Your task to perform on an android device: Open maps Image 0: 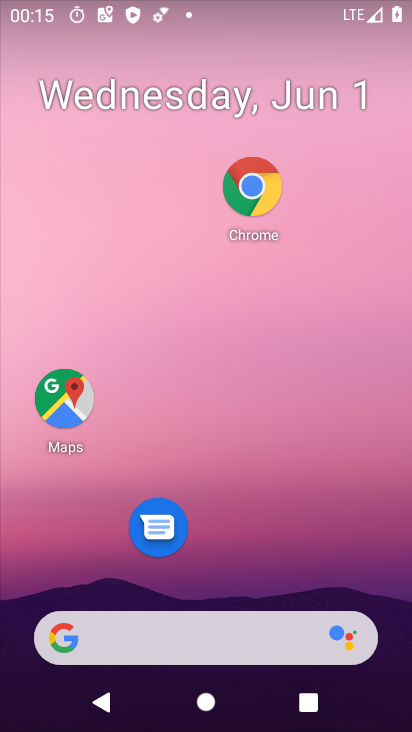
Step 0: drag from (207, 549) to (217, 13)
Your task to perform on an android device: Open maps Image 1: 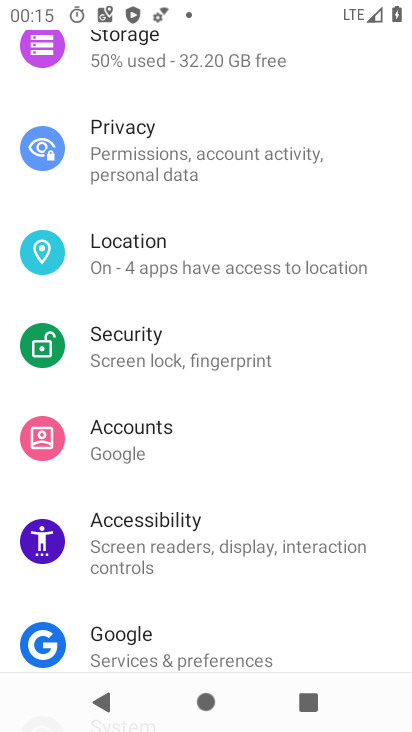
Step 1: drag from (186, 135) to (232, 723)
Your task to perform on an android device: Open maps Image 2: 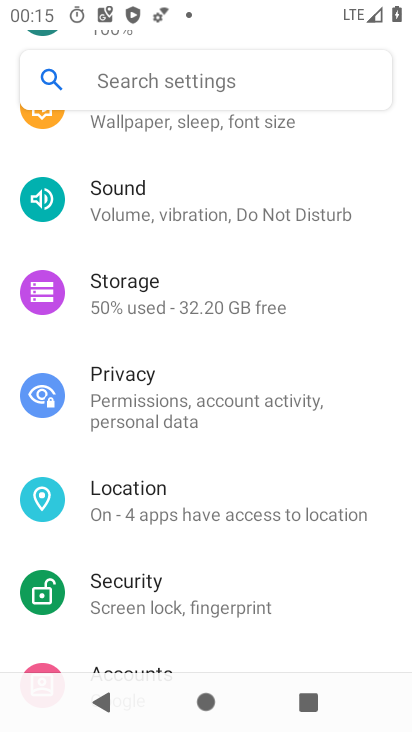
Step 2: drag from (218, 580) to (260, 58)
Your task to perform on an android device: Open maps Image 3: 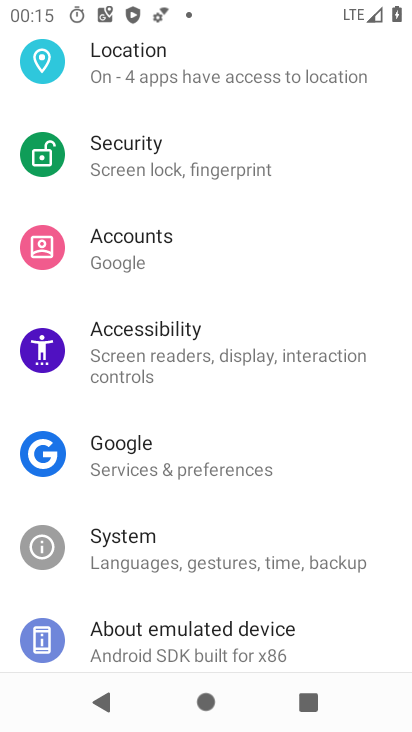
Step 3: press home button
Your task to perform on an android device: Open maps Image 4: 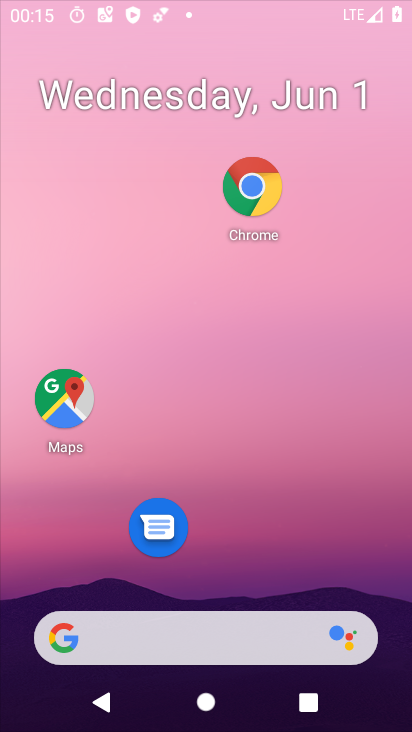
Step 4: drag from (170, 561) to (242, 80)
Your task to perform on an android device: Open maps Image 5: 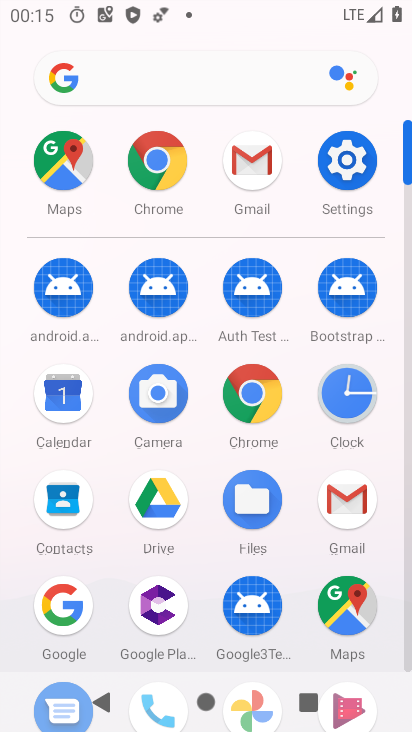
Step 5: click (341, 594)
Your task to perform on an android device: Open maps Image 6: 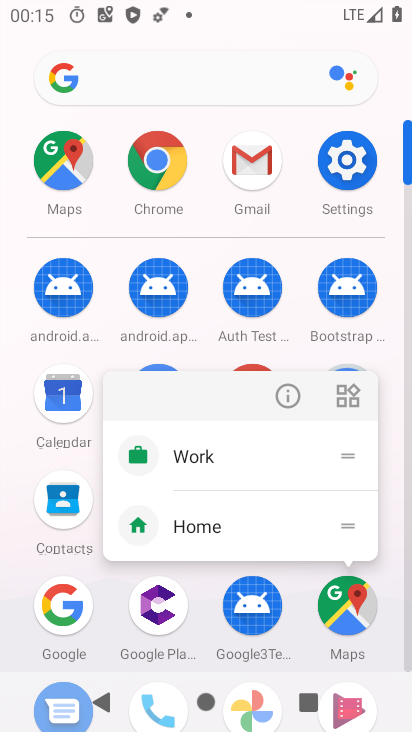
Step 6: click (286, 393)
Your task to perform on an android device: Open maps Image 7: 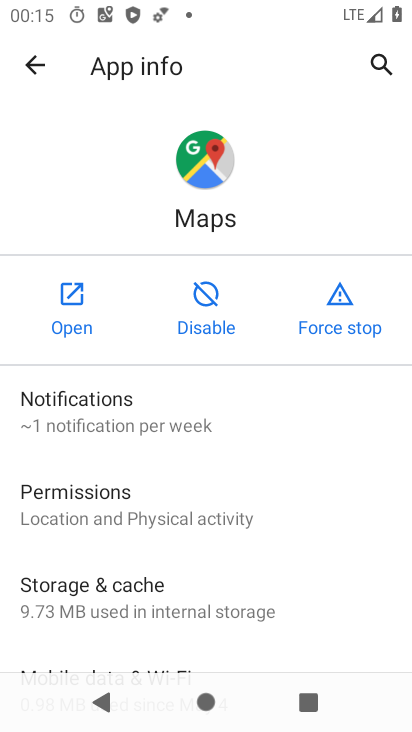
Step 7: click (59, 302)
Your task to perform on an android device: Open maps Image 8: 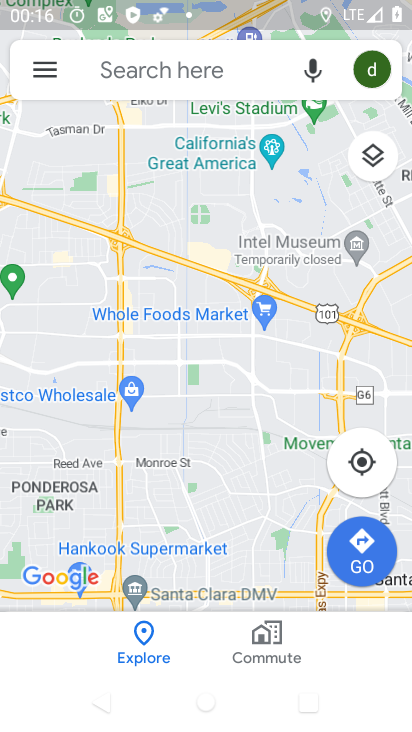
Step 8: task complete